Your task to perform on an android device: Check the news Image 0: 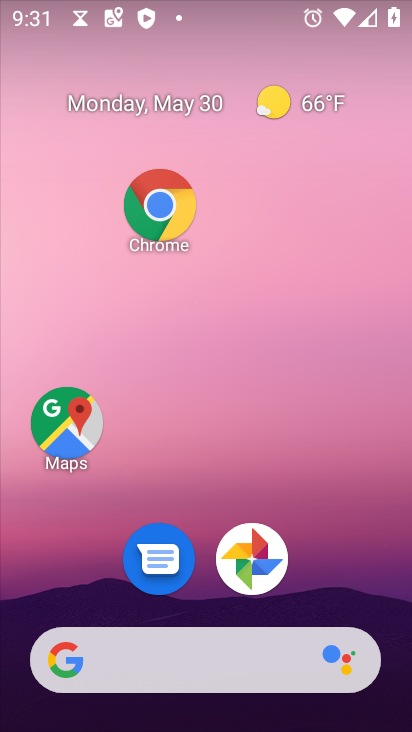
Step 0: drag from (21, 213) to (399, 346)
Your task to perform on an android device: Check the news Image 1: 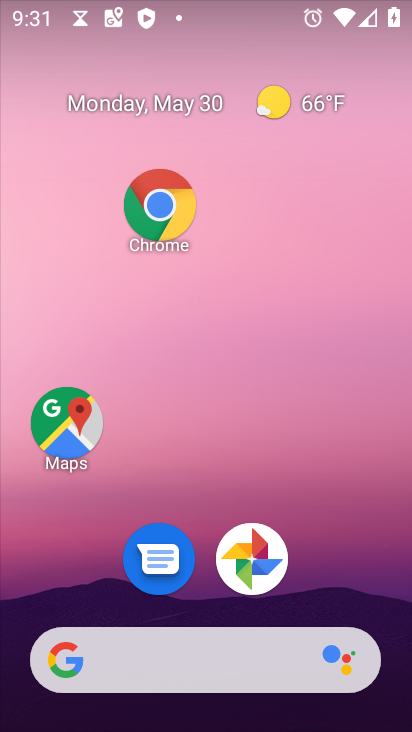
Step 1: drag from (0, 216) to (387, 519)
Your task to perform on an android device: Check the news Image 2: 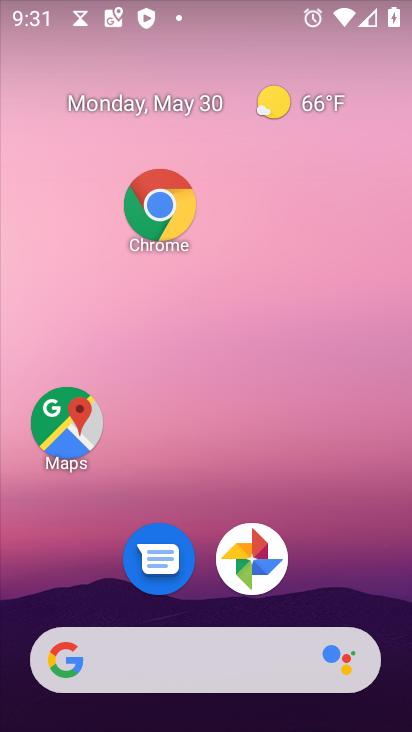
Step 2: drag from (0, 201) to (408, 520)
Your task to perform on an android device: Check the news Image 3: 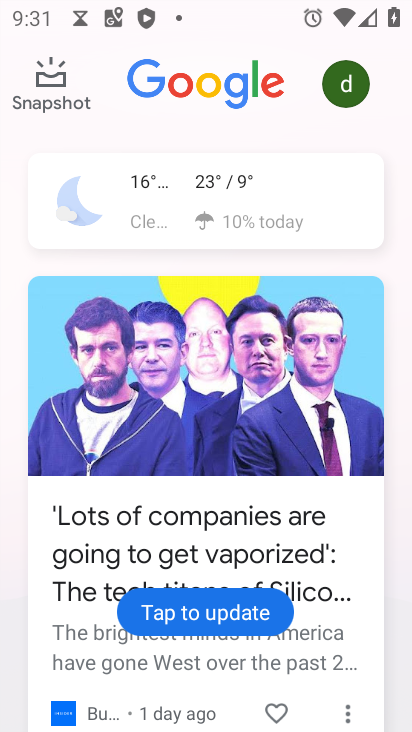
Step 3: click (160, 212)
Your task to perform on an android device: Check the news Image 4: 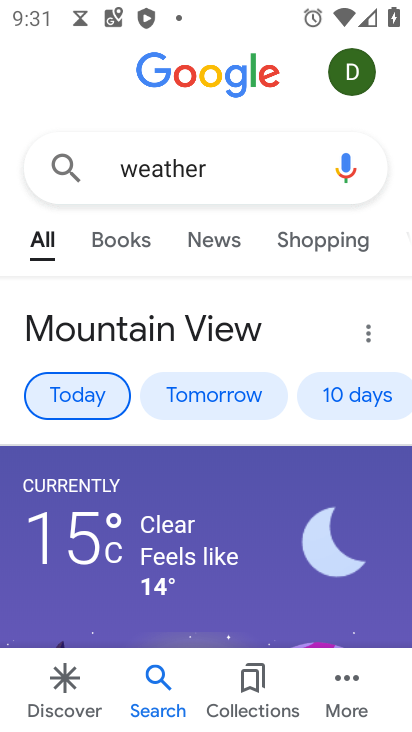
Step 4: task complete